Your task to perform on an android device: Open battery settings Image 0: 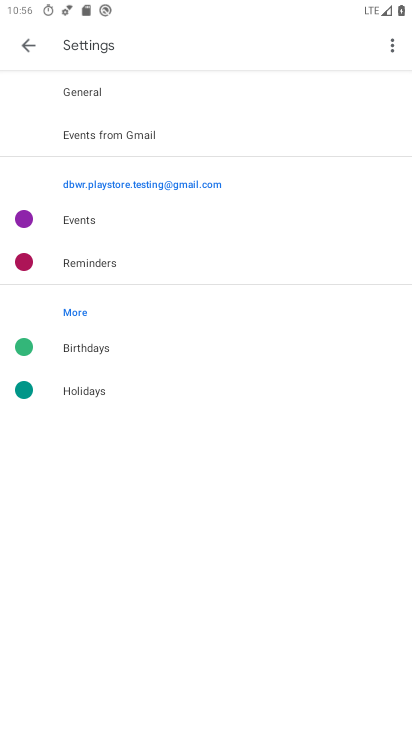
Step 0: press home button
Your task to perform on an android device: Open battery settings Image 1: 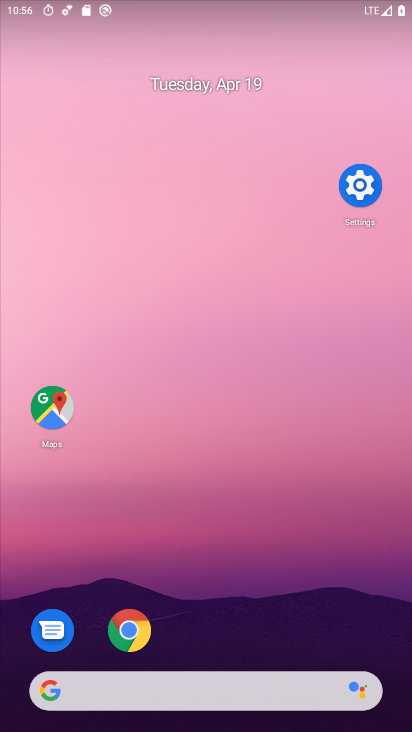
Step 1: drag from (232, 597) to (373, 151)
Your task to perform on an android device: Open battery settings Image 2: 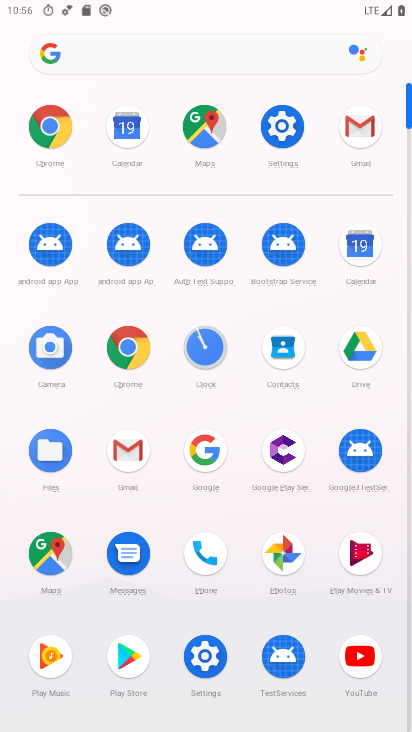
Step 2: click (267, 122)
Your task to perform on an android device: Open battery settings Image 3: 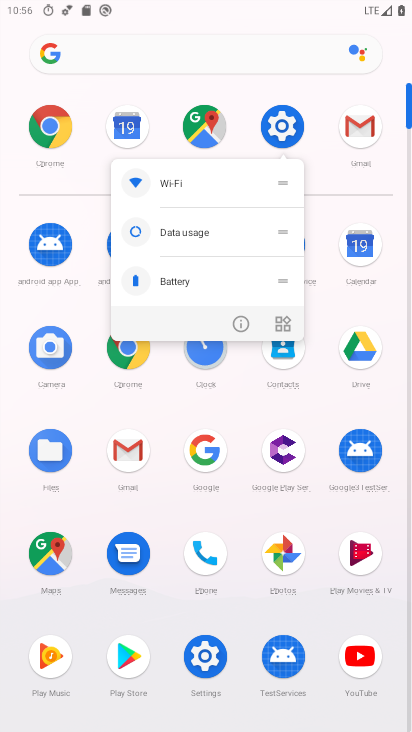
Step 3: click (296, 127)
Your task to perform on an android device: Open battery settings Image 4: 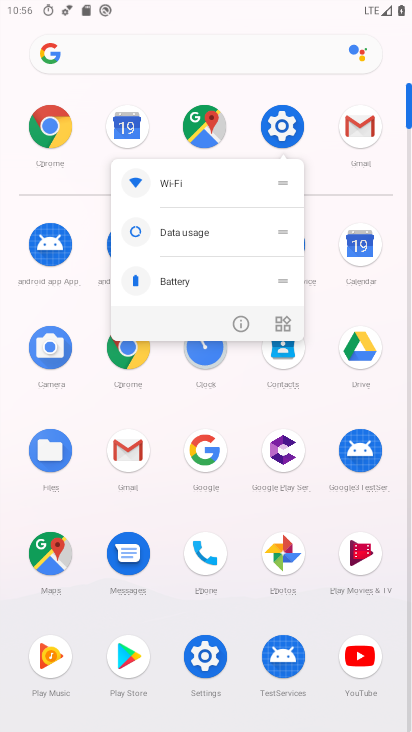
Step 4: click (295, 131)
Your task to perform on an android device: Open battery settings Image 5: 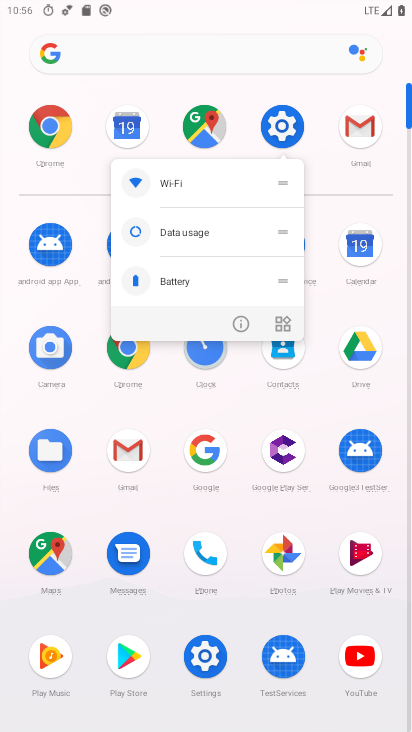
Step 5: click (295, 131)
Your task to perform on an android device: Open battery settings Image 6: 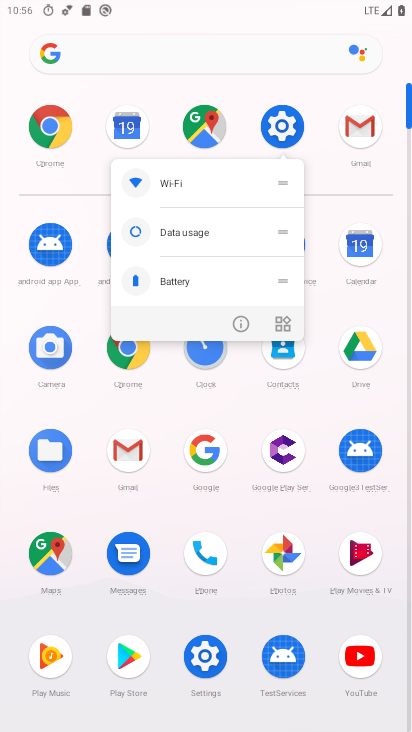
Step 6: click (300, 129)
Your task to perform on an android device: Open battery settings Image 7: 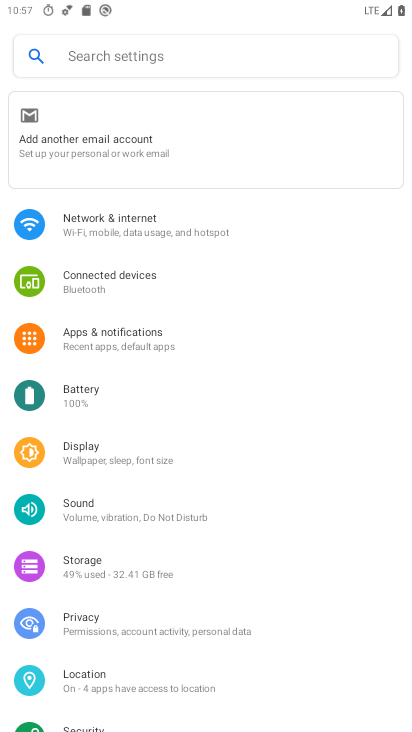
Step 7: click (184, 398)
Your task to perform on an android device: Open battery settings Image 8: 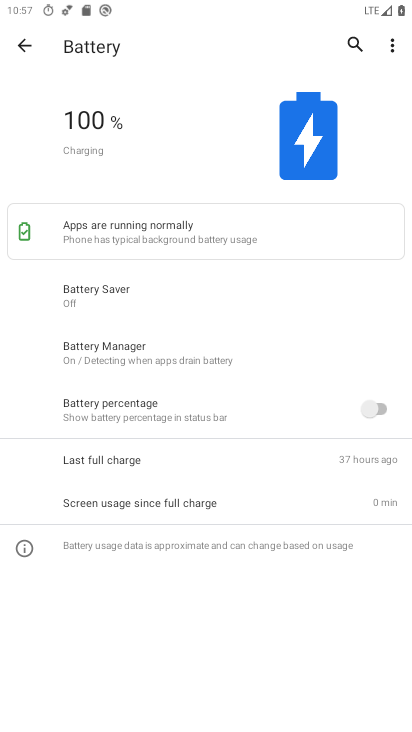
Step 8: task complete